Your task to perform on an android device: Search for sushi restaurants on Maps Image 0: 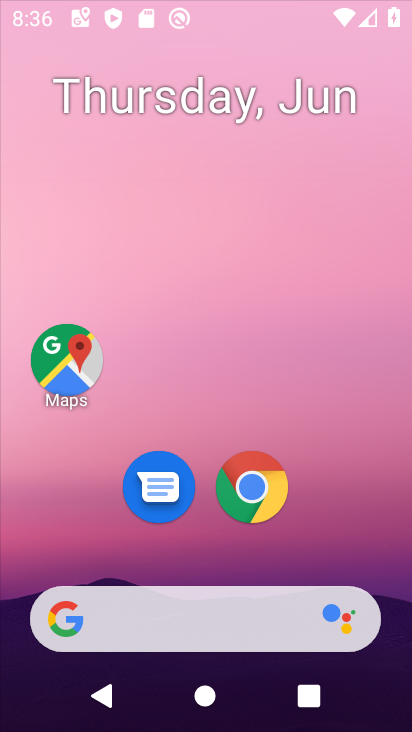
Step 0: drag from (137, 536) to (194, 10)
Your task to perform on an android device: Search for sushi restaurants on Maps Image 1: 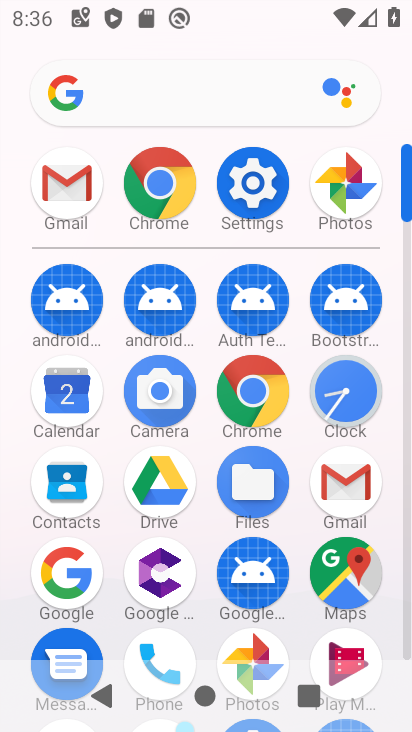
Step 1: click (346, 563)
Your task to perform on an android device: Search for sushi restaurants on Maps Image 2: 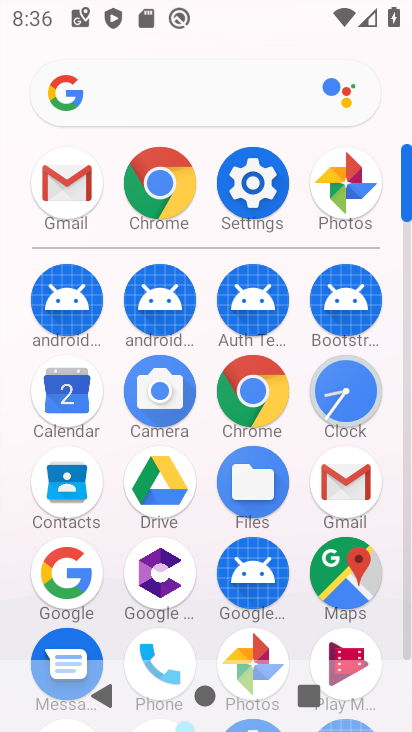
Step 2: click (344, 572)
Your task to perform on an android device: Search for sushi restaurants on Maps Image 3: 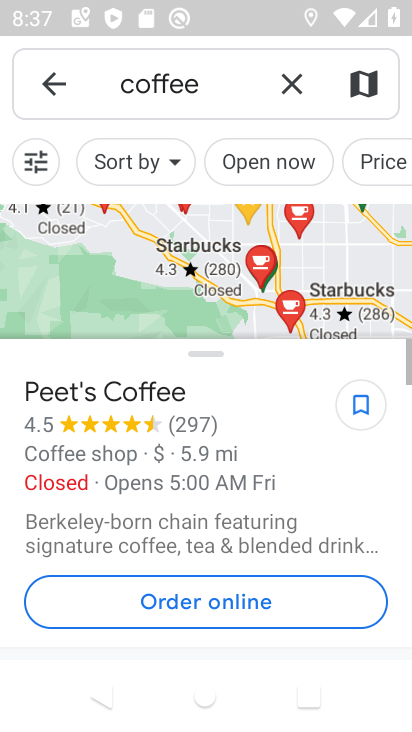
Step 3: click (33, 81)
Your task to perform on an android device: Search for sushi restaurants on Maps Image 4: 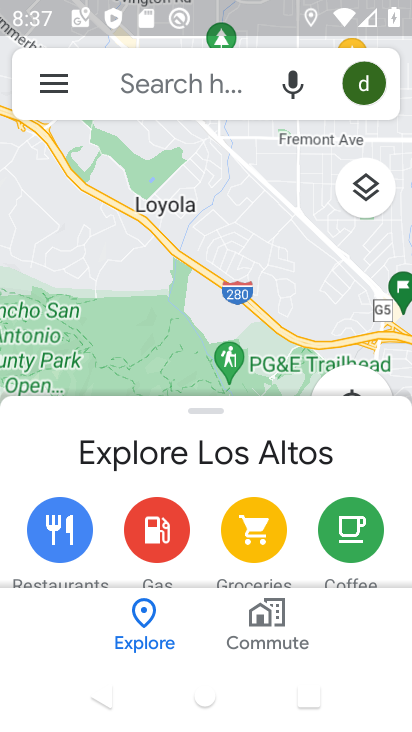
Step 4: click (193, 80)
Your task to perform on an android device: Search for sushi restaurants on Maps Image 5: 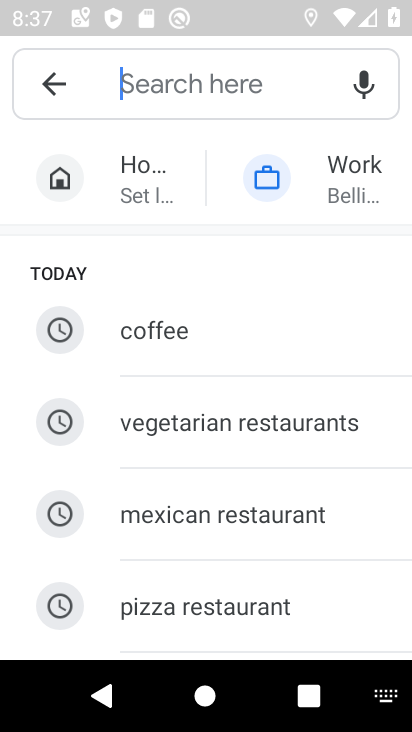
Step 5: click (180, 325)
Your task to perform on an android device: Search for sushi restaurants on Maps Image 6: 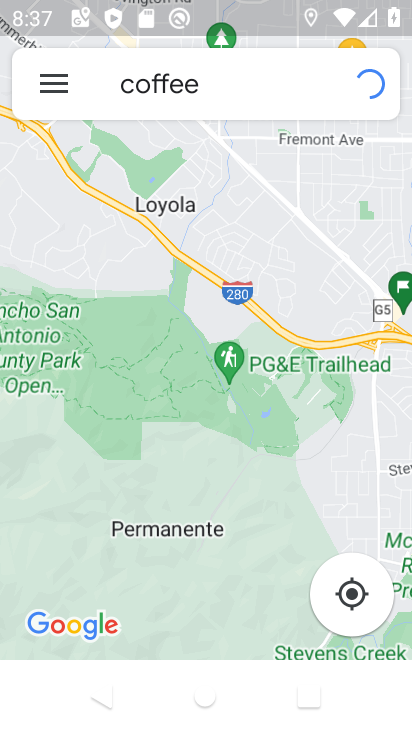
Step 6: click (230, 99)
Your task to perform on an android device: Search for sushi restaurants on Maps Image 7: 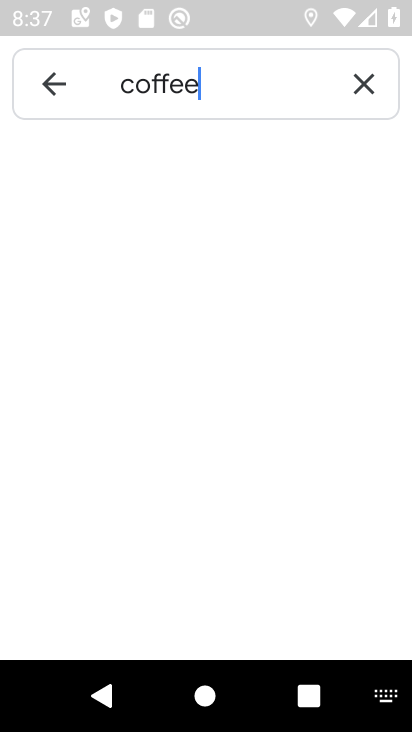
Step 7: click (181, 79)
Your task to perform on an android device: Search for sushi restaurants on Maps Image 8: 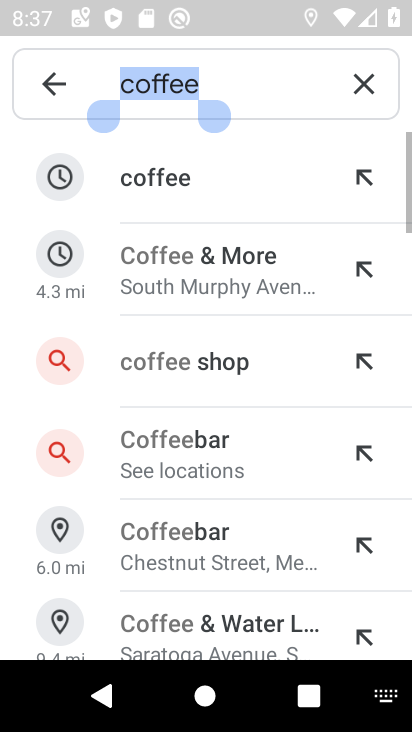
Step 8: click (382, 79)
Your task to perform on an android device: Search for sushi restaurants on Maps Image 9: 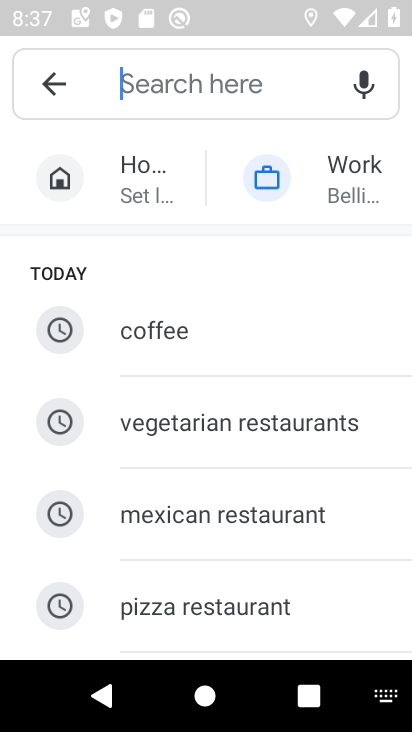
Step 9: drag from (210, 538) to (255, 186)
Your task to perform on an android device: Search for sushi restaurants on Maps Image 10: 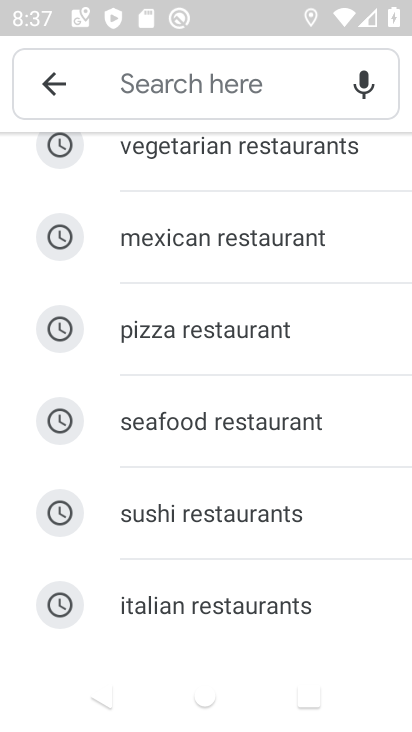
Step 10: click (153, 516)
Your task to perform on an android device: Search for sushi restaurants on Maps Image 11: 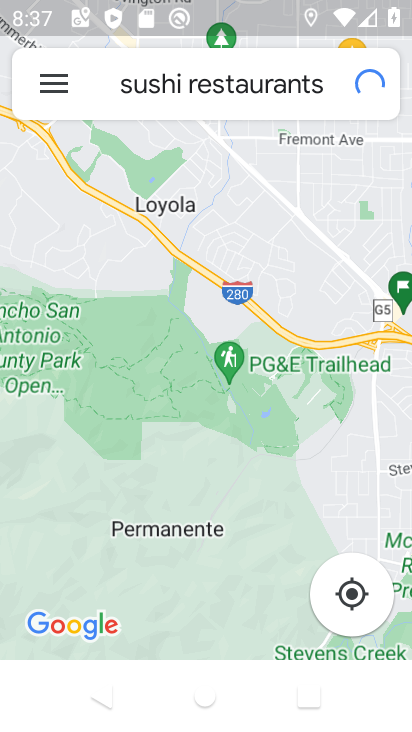
Step 11: task complete